Your task to perform on an android device: Search for sushi restaurants on Maps Image 0: 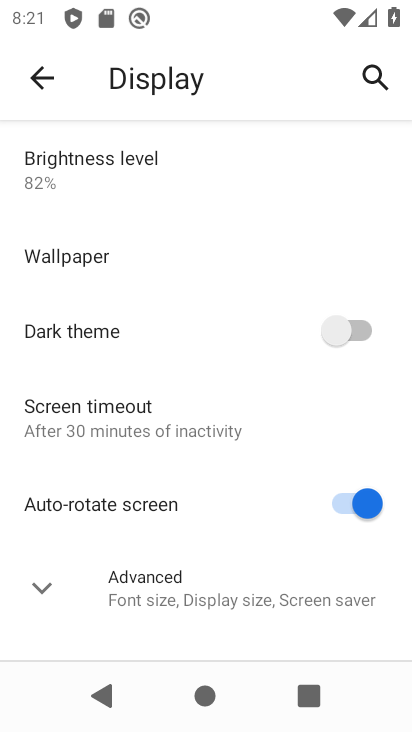
Step 0: click (334, 497)
Your task to perform on an android device: Search for sushi restaurants on Maps Image 1: 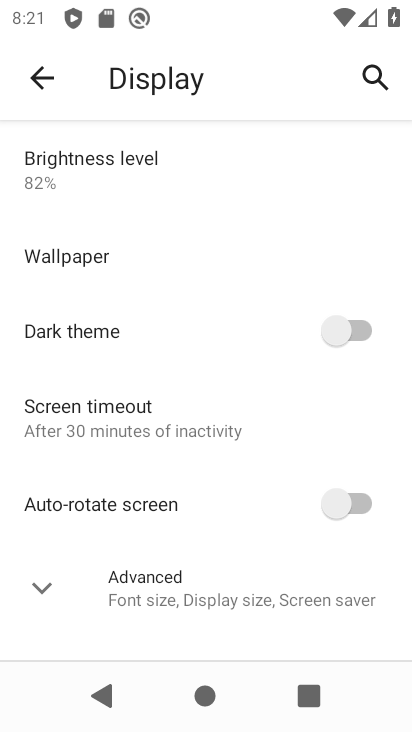
Step 1: press home button
Your task to perform on an android device: Search for sushi restaurants on Maps Image 2: 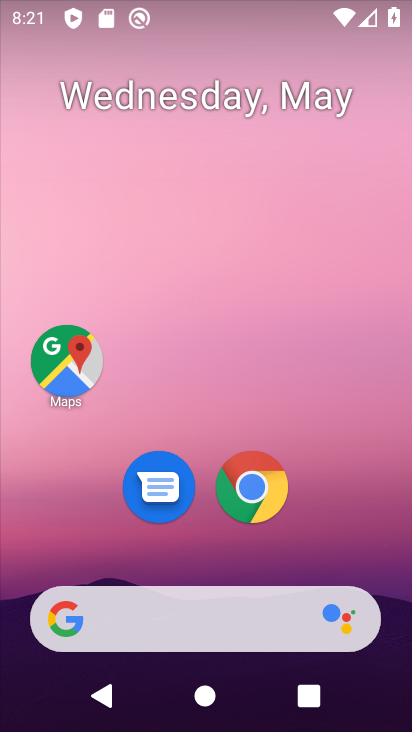
Step 2: click (73, 367)
Your task to perform on an android device: Search for sushi restaurants on Maps Image 3: 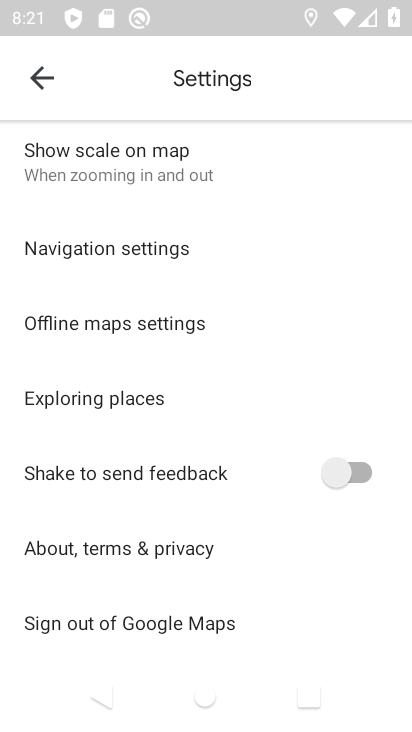
Step 3: click (39, 70)
Your task to perform on an android device: Search for sushi restaurants on Maps Image 4: 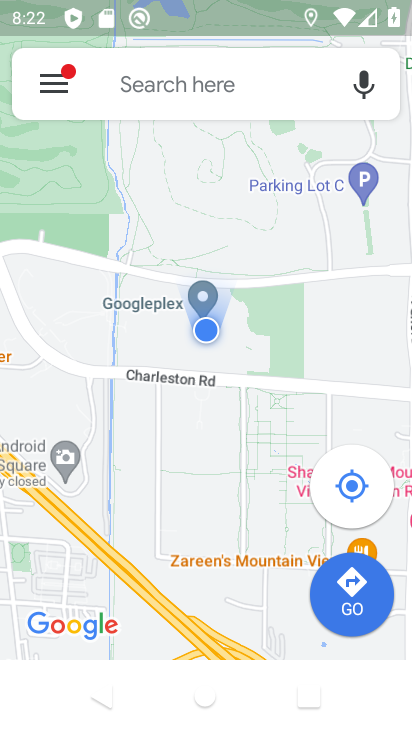
Step 4: click (191, 91)
Your task to perform on an android device: Search for sushi restaurants on Maps Image 5: 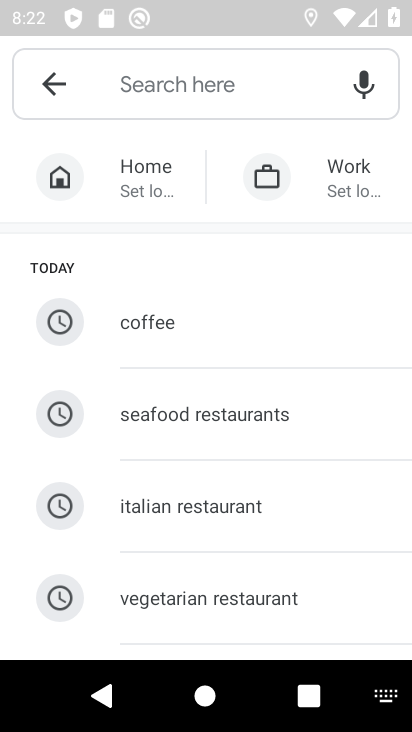
Step 5: click (152, 79)
Your task to perform on an android device: Search for sushi restaurants on Maps Image 6: 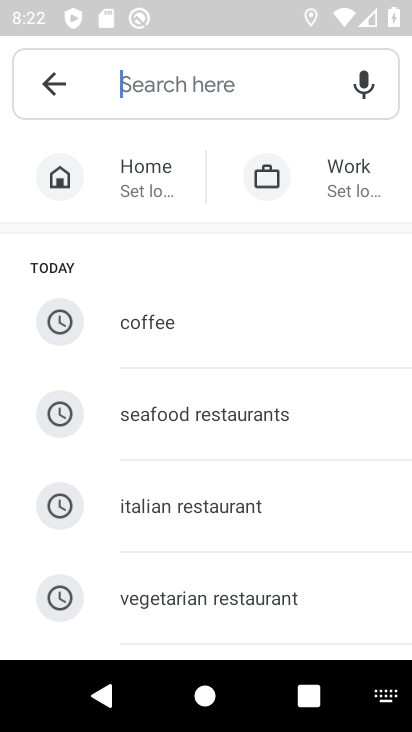
Step 6: type "sushi"
Your task to perform on an android device: Search for sushi restaurants on Maps Image 7: 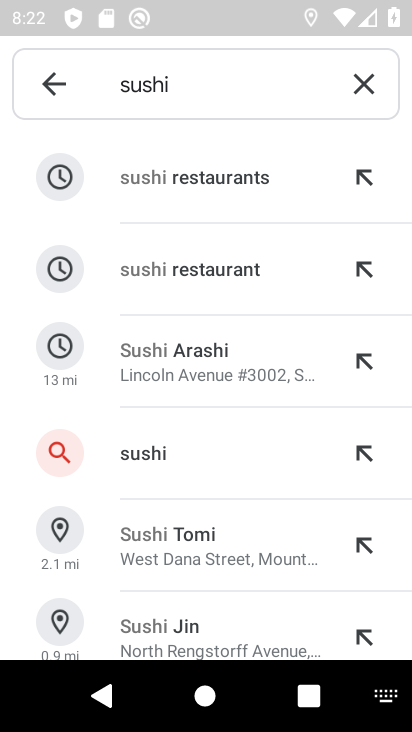
Step 7: click (208, 174)
Your task to perform on an android device: Search for sushi restaurants on Maps Image 8: 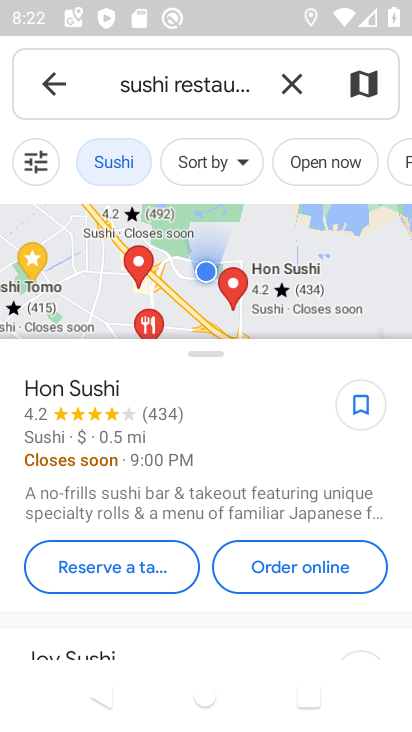
Step 8: task complete